Your task to perform on an android device: Show me popular games on the Play Store Image 0: 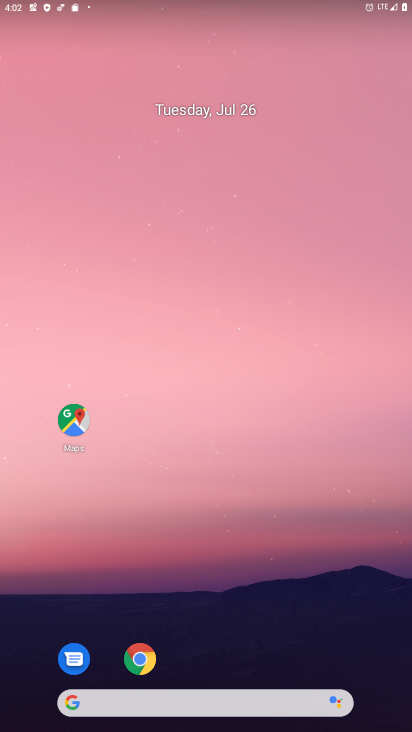
Step 0: press home button
Your task to perform on an android device: Show me popular games on the Play Store Image 1: 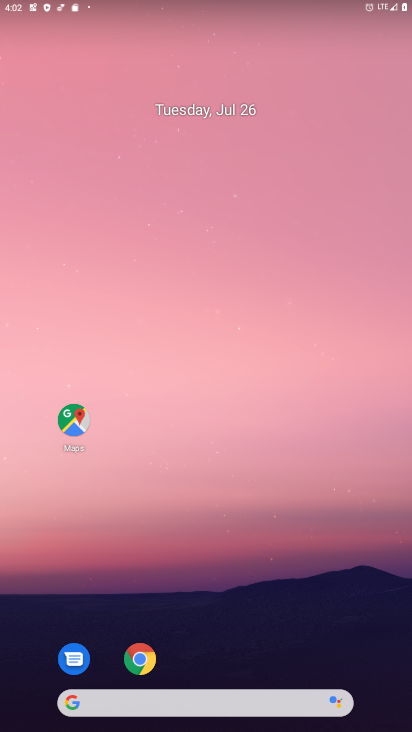
Step 1: drag from (246, 550) to (242, 11)
Your task to perform on an android device: Show me popular games on the Play Store Image 2: 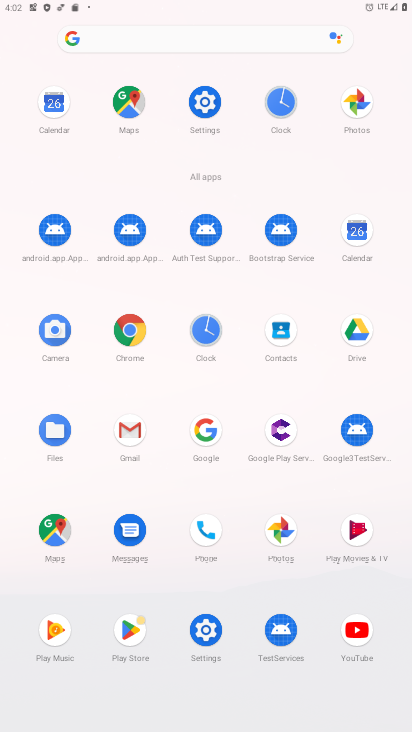
Step 2: click (131, 626)
Your task to perform on an android device: Show me popular games on the Play Store Image 3: 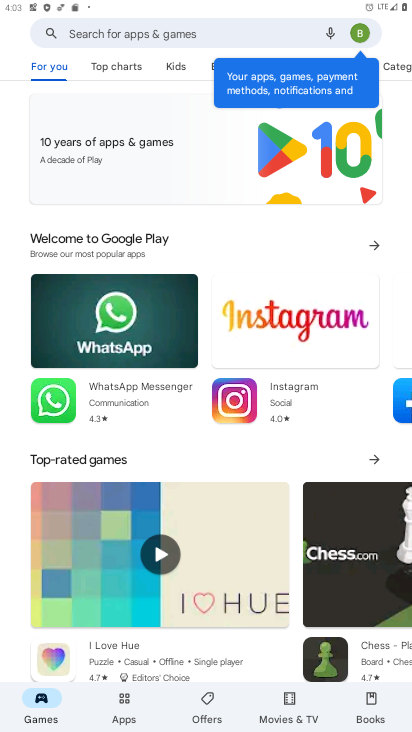
Step 3: click (33, 702)
Your task to perform on an android device: Show me popular games on the Play Store Image 4: 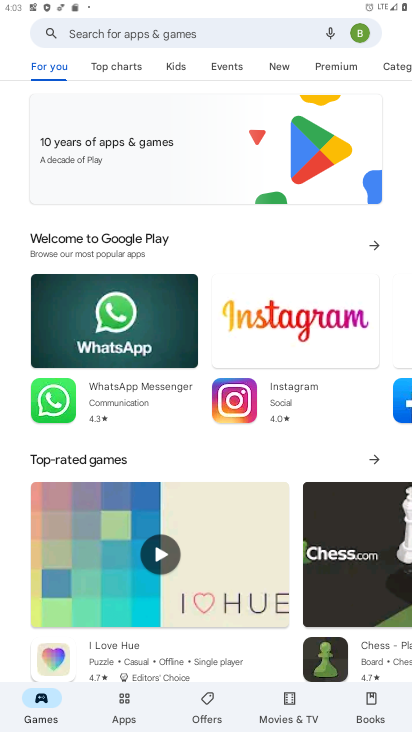
Step 4: click (400, 65)
Your task to perform on an android device: Show me popular games on the Play Store Image 5: 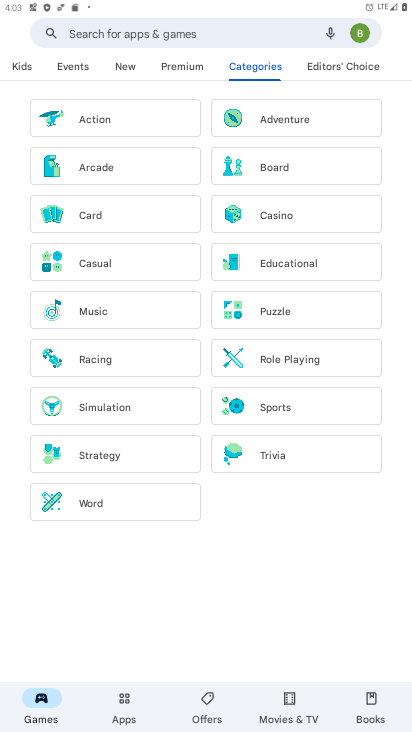
Step 5: task complete